Your task to perform on an android device: read, delete, or share a saved page in the chrome app Image 0: 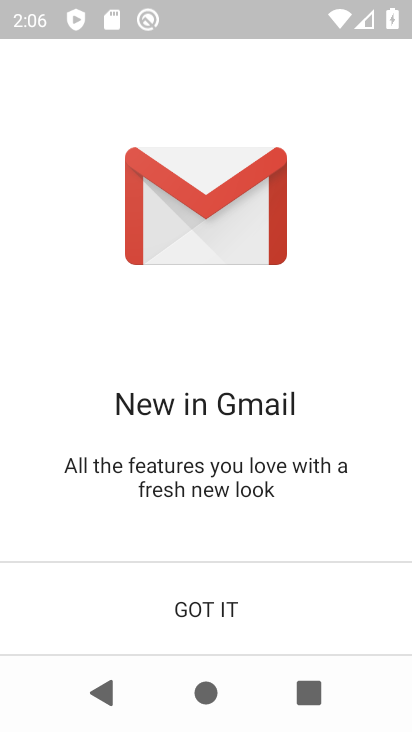
Step 0: press home button
Your task to perform on an android device: read, delete, or share a saved page in the chrome app Image 1: 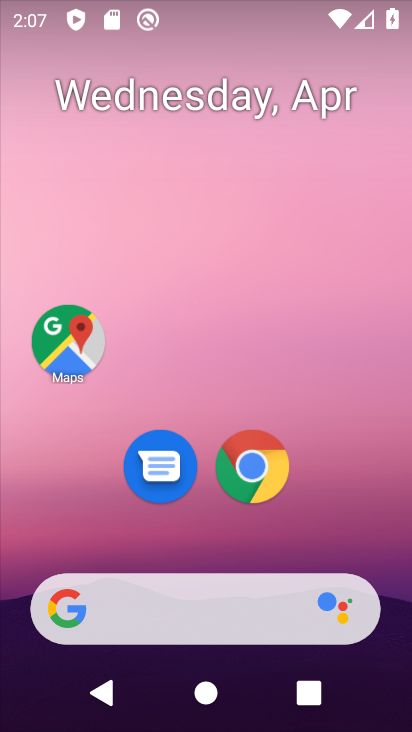
Step 1: click (256, 487)
Your task to perform on an android device: read, delete, or share a saved page in the chrome app Image 2: 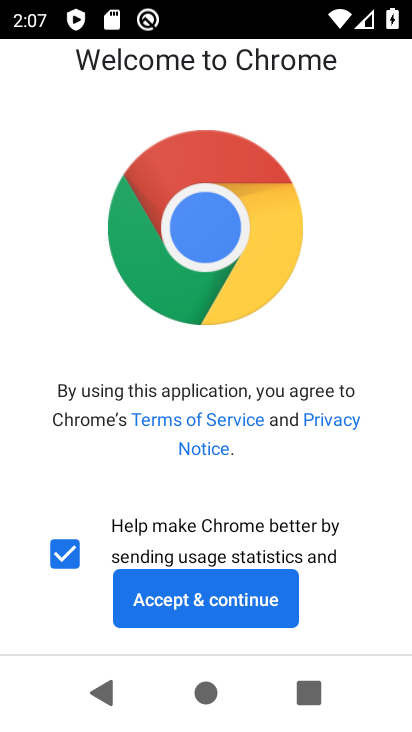
Step 2: click (172, 601)
Your task to perform on an android device: read, delete, or share a saved page in the chrome app Image 3: 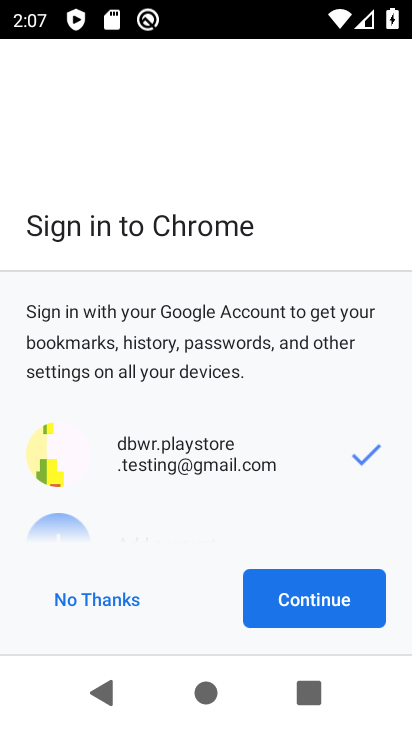
Step 3: click (285, 603)
Your task to perform on an android device: read, delete, or share a saved page in the chrome app Image 4: 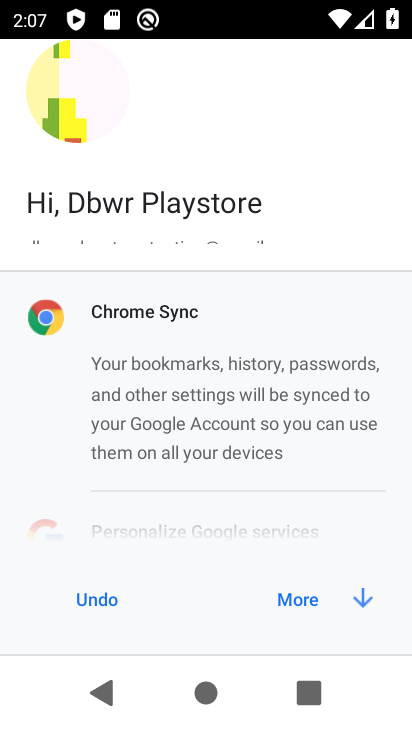
Step 4: click (322, 598)
Your task to perform on an android device: read, delete, or share a saved page in the chrome app Image 5: 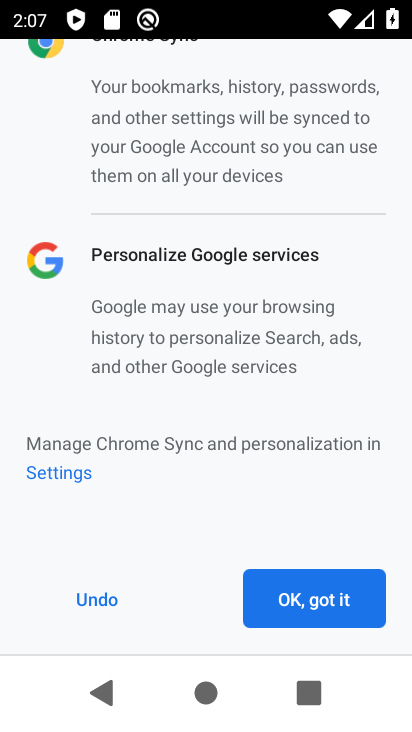
Step 5: click (294, 598)
Your task to perform on an android device: read, delete, or share a saved page in the chrome app Image 6: 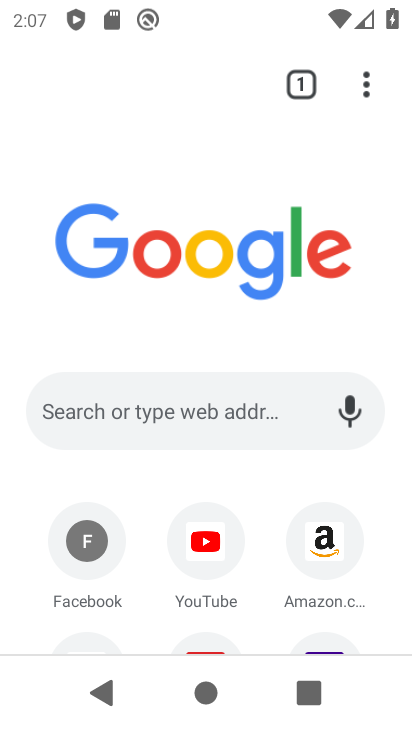
Step 6: click (362, 84)
Your task to perform on an android device: read, delete, or share a saved page in the chrome app Image 7: 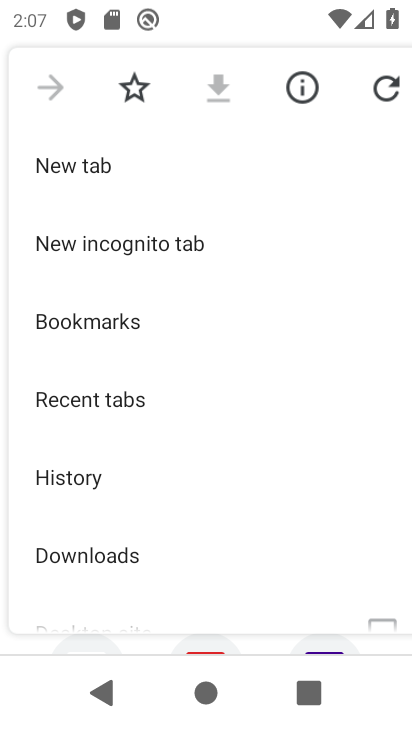
Step 7: drag from (124, 531) to (158, 255)
Your task to perform on an android device: read, delete, or share a saved page in the chrome app Image 8: 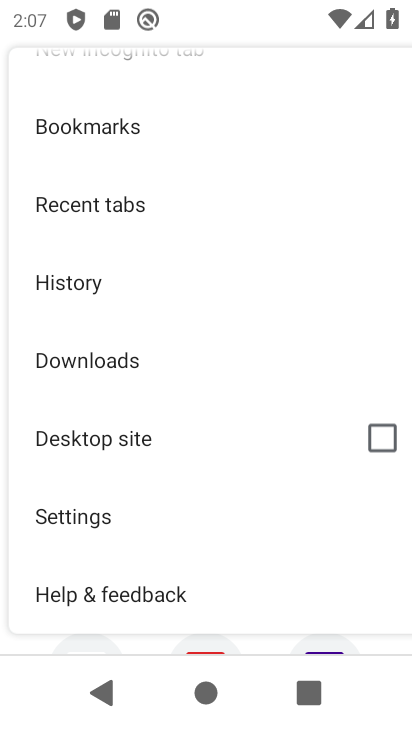
Step 8: drag from (176, 539) to (209, 185)
Your task to perform on an android device: read, delete, or share a saved page in the chrome app Image 9: 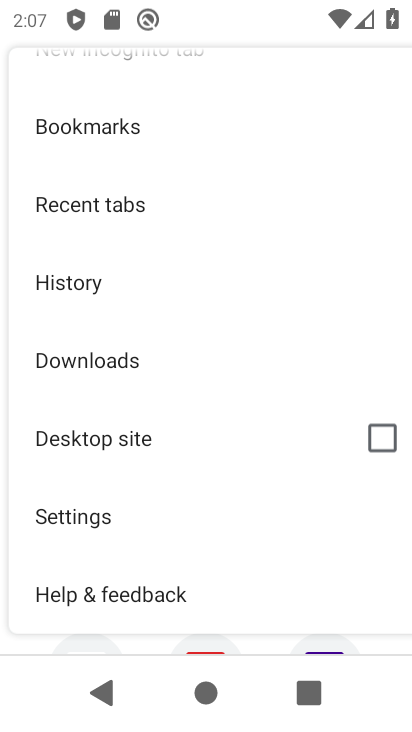
Step 9: click (87, 355)
Your task to perform on an android device: read, delete, or share a saved page in the chrome app Image 10: 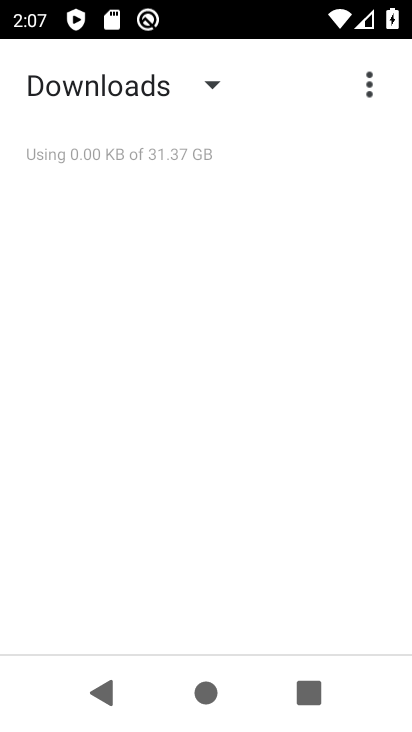
Step 10: click (209, 78)
Your task to perform on an android device: read, delete, or share a saved page in the chrome app Image 11: 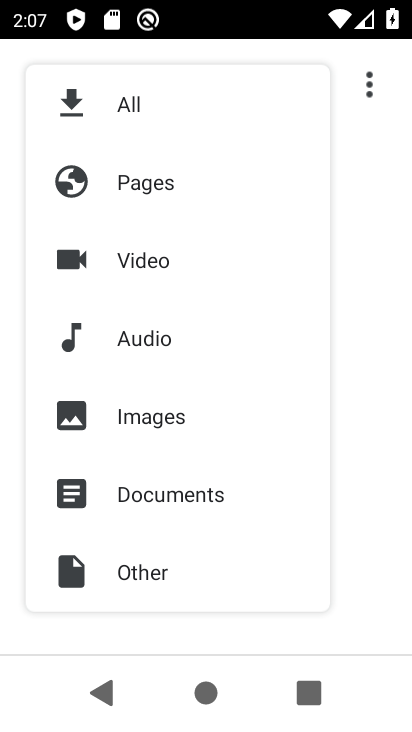
Step 11: click (155, 184)
Your task to perform on an android device: read, delete, or share a saved page in the chrome app Image 12: 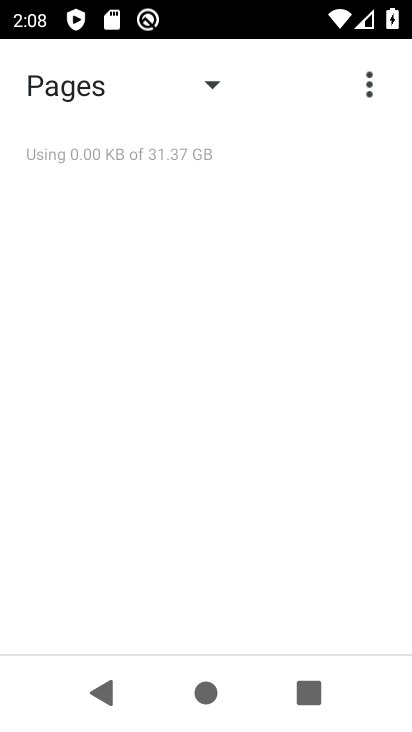
Step 12: task complete